Your task to perform on an android device: toggle wifi Image 0: 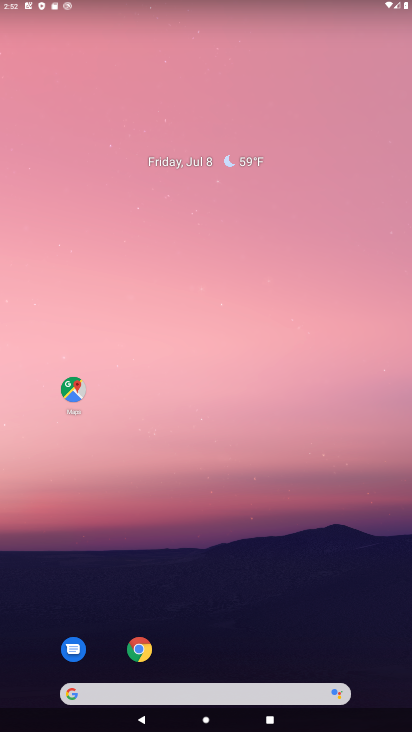
Step 0: drag from (260, 556) to (241, 186)
Your task to perform on an android device: toggle wifi Image 1: 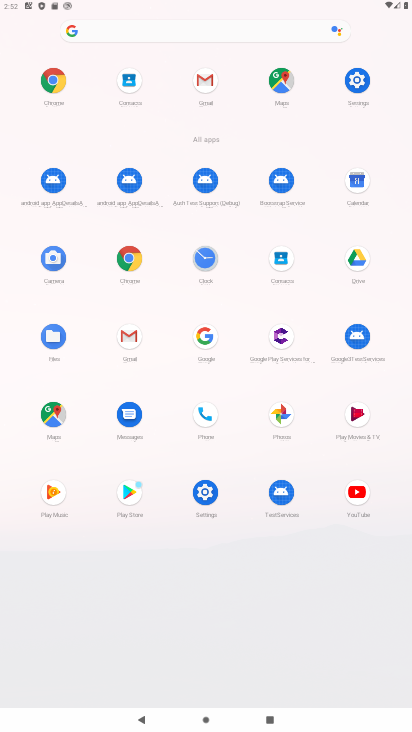
Step 1: click (362, 89)
Your task to perform on an android device: toggle wifi Image 2: 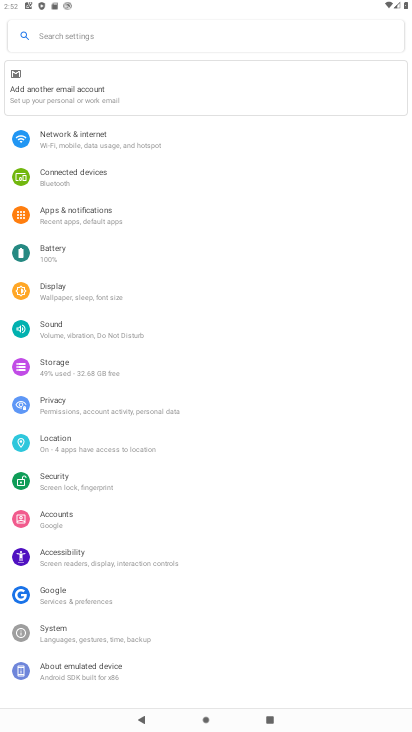
Step 2: click (44, 144)
Your task to perform on an android device: toggle wifi Image 3: 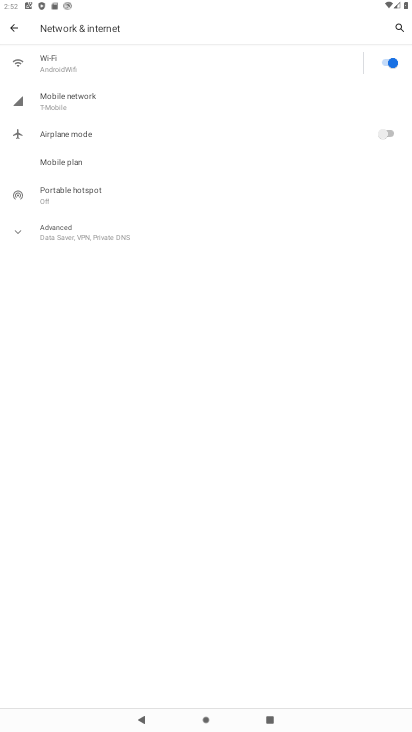
Step 3: click (188, 54)
Your task to perform on an android device: toggle wifi Image 4: 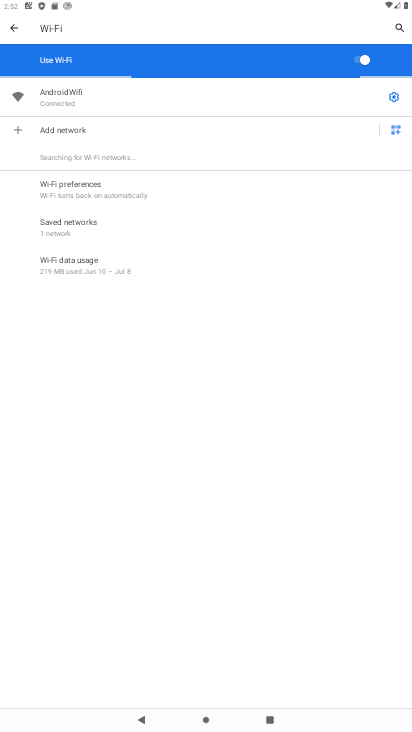
Step 4: click (377, 57)
Your task to perform on an android device: toggle wifi Image 5: 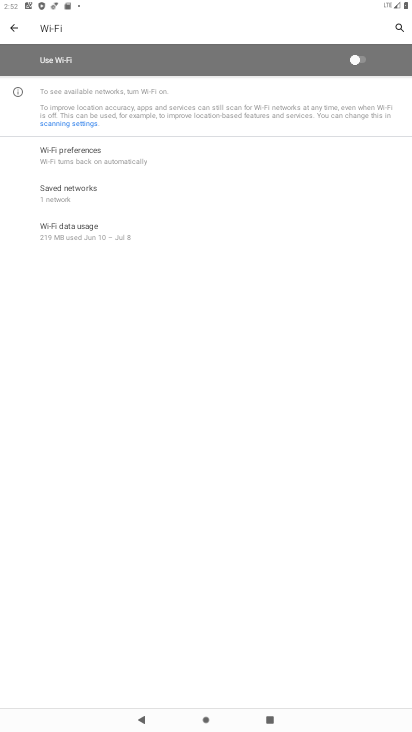
Step 5: task complete